Your task to perform on an android device: toggle wifi Image 0: 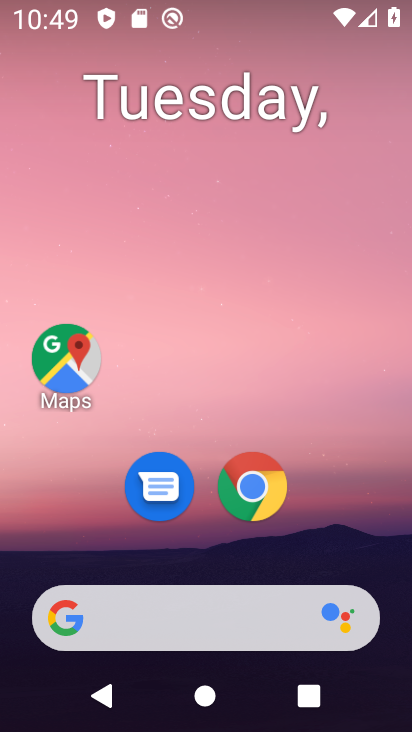
Step 0: drag from (338, 549) to (361, 86)
Your task to perform on an android device: toggle wifi Image 1: 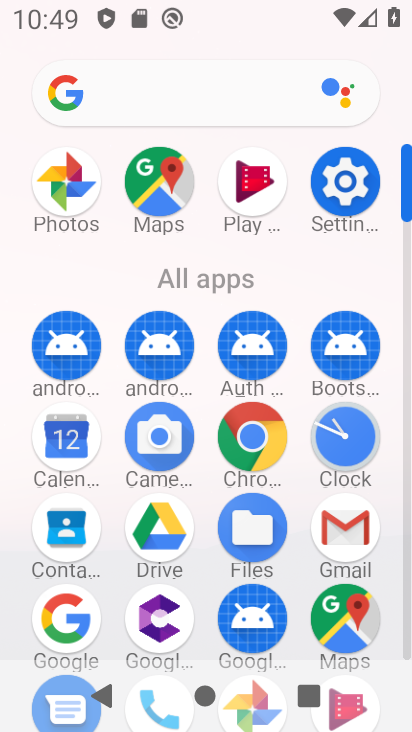
Step 1: click (350, 195)
Your task to perform on an android device: toggle wifi Image 2: 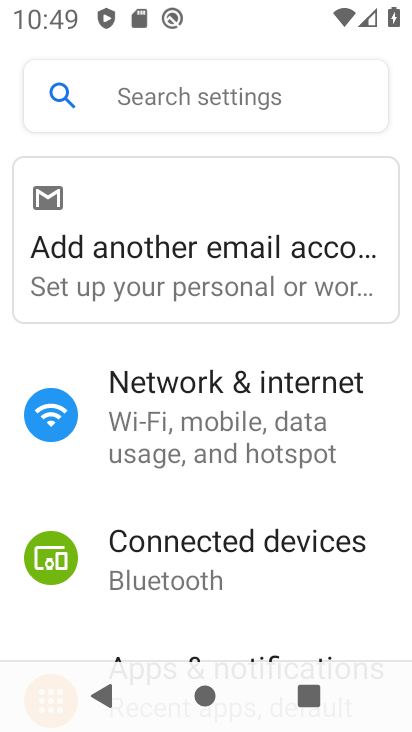
Step 2: drag from (363, 492) to (358, 375)
Your task to perform on an android device: toggle wifi Image 3: 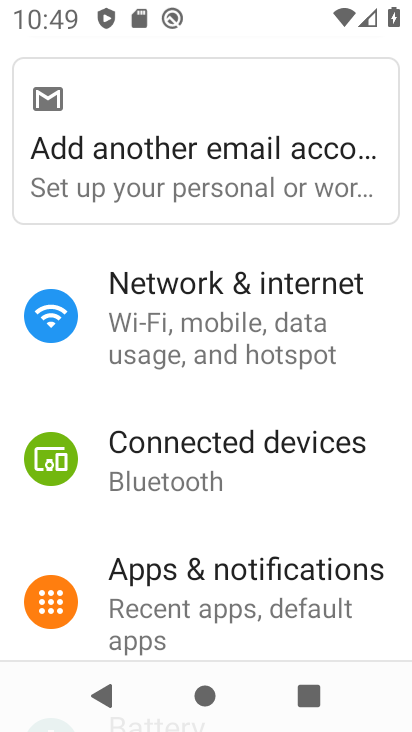
Step 3: drag from (362, 489) to (365, 422)
Your task to perform on an android device: toggle wifi Image 4: 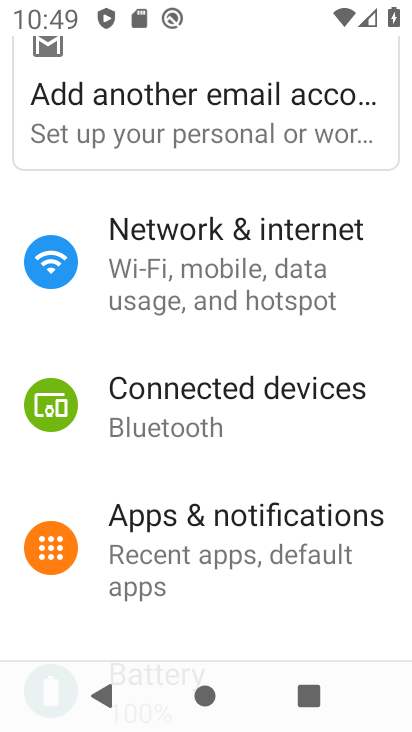
Step 4: drag from (374, 594) to (376, 466)
Your task to perform on an android device: toggle wifi Image 5: 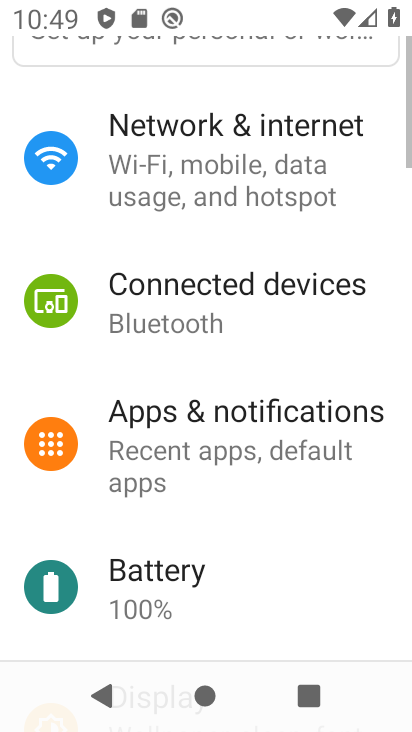
Step 5: drag from (353, 563) to (351, 456)
Your task to perform on an android device: toggle wifi Image 6: 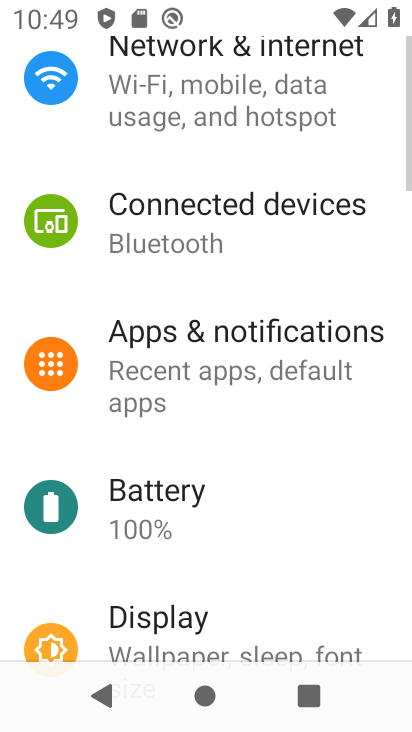
Step 6: drag from (345, 562) to (344, 427)
Your task to perform on an android device: toggle wifi Image 7: 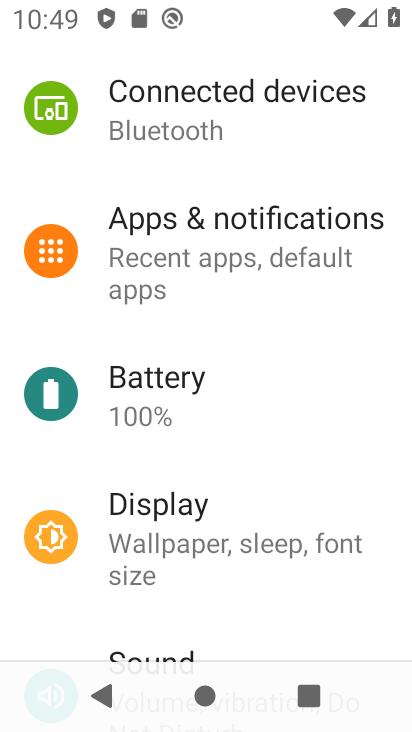
Step 7: drag from (356, 587) to (340, 425)
Your task to perform on an android device: toggle wifi Image 8: 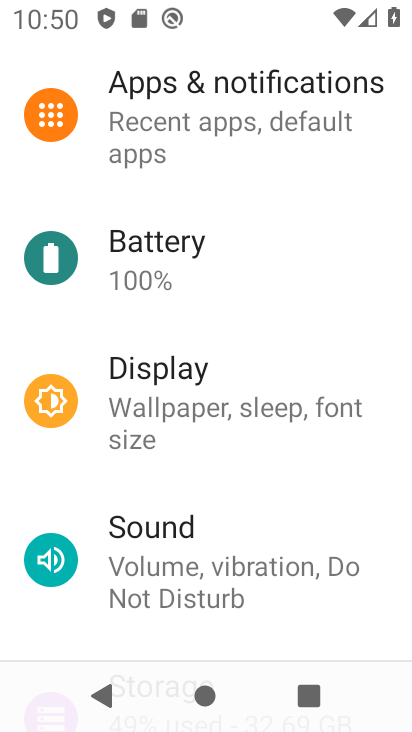
Step 8: drag from (347, 277) to (357, 416)
Your task to perform on an android device: toggle wifi Image 9: 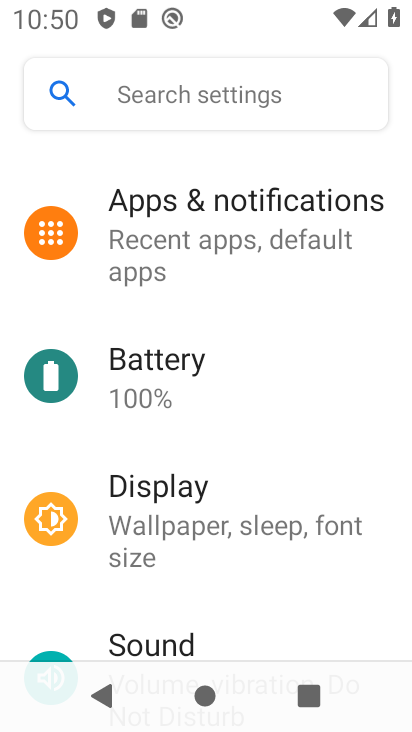
Step 9: drag from (357, 297) to (354, 453)
Your task to perform on an android device: toggle wifi Image 10: 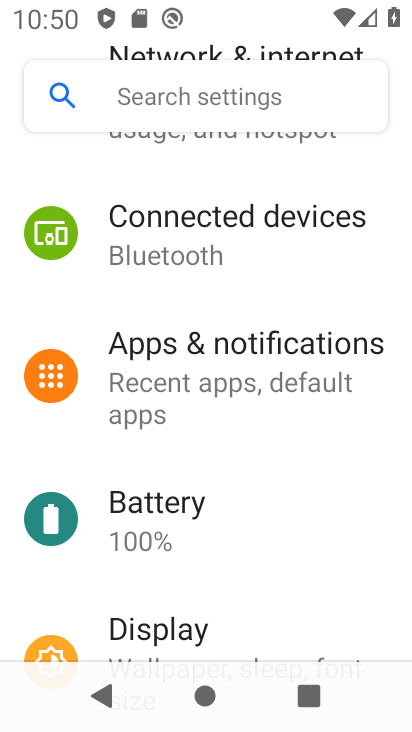
Step 10: drag from (351, 311) to (345, 436)
Your task to perform on an android device: toggle wifi Image 11: 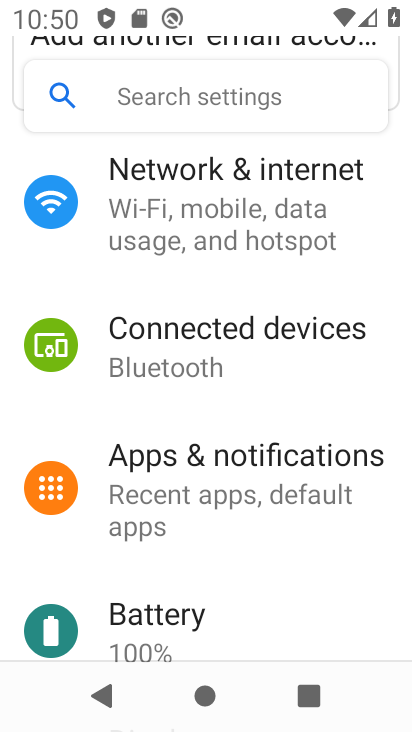
Step 11: drag from (350, 260) to (347, 556)
Your task to perform on an android device: toggle wifi Image 12: 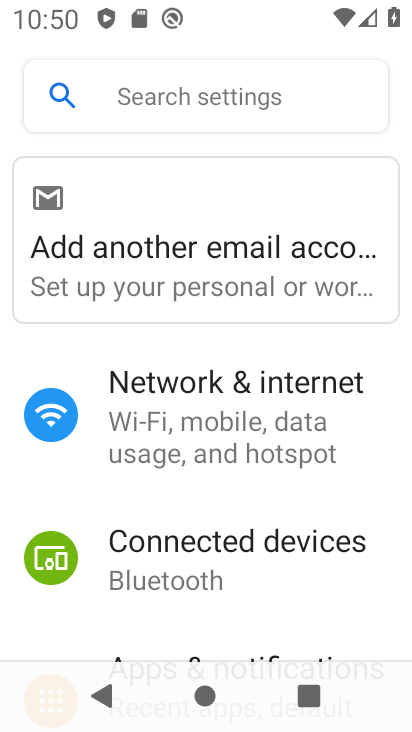
Step 12: drag from (377, 392) to (371, 557)
Your task to perform on an android device: toggle wifi Image 13: 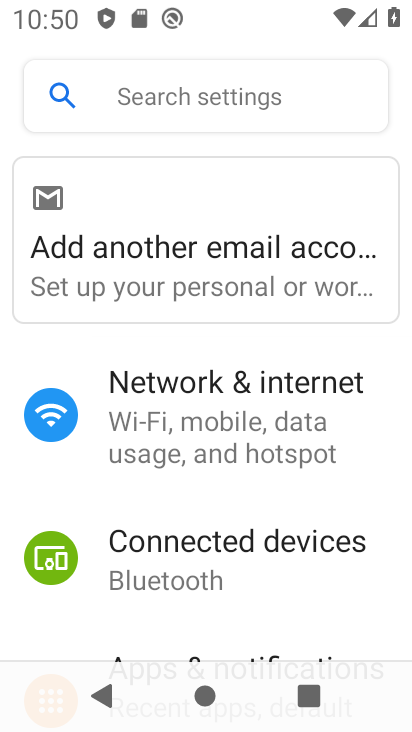
Step 13: drag from (341, 594) to (344, 455)
Your task to perform on an android device: toggle wifi Image 14: 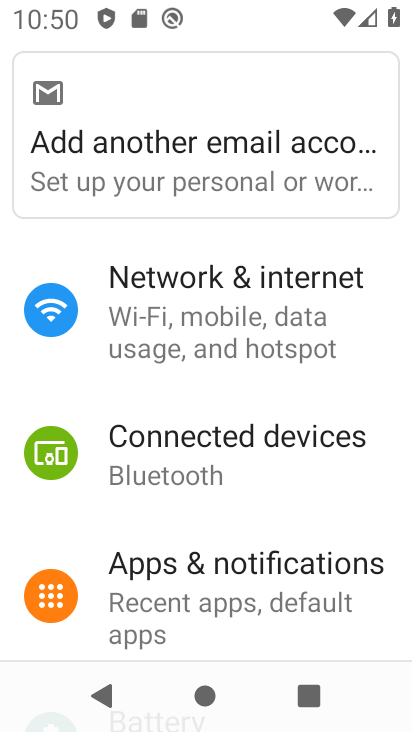
Step 14: drag from (345, 338) to (346, 493)
Your task to perform on an android device: toggle wifi Image 15: 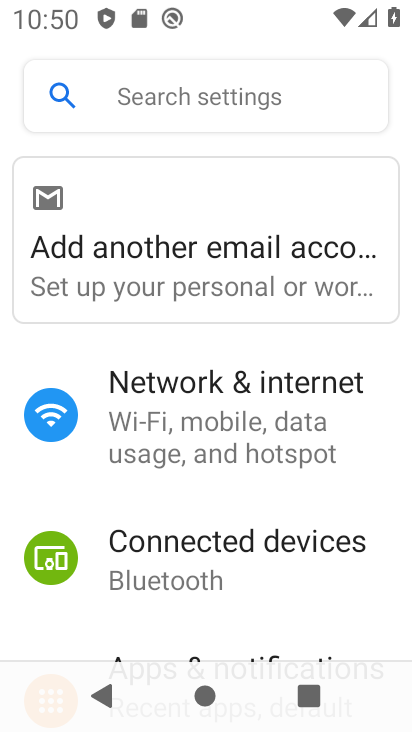
Step 15: click (279, 447)
Your task to perform on an android device: toggle wifi Image 16: 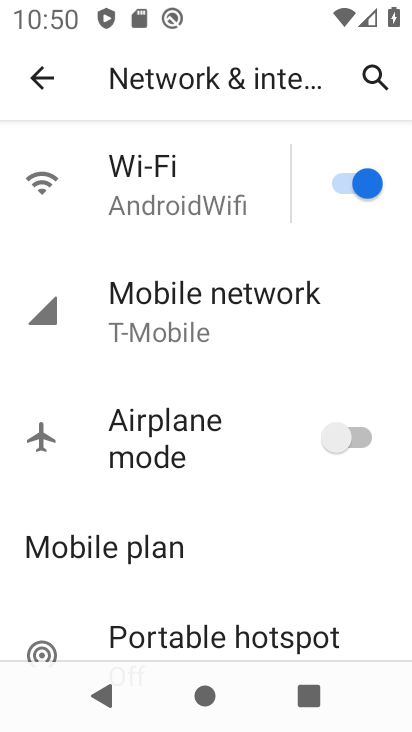
Step 16: drag from (263, 504) to (267, 392)
Your task to perform on an android device: toggle wifi Image 17: 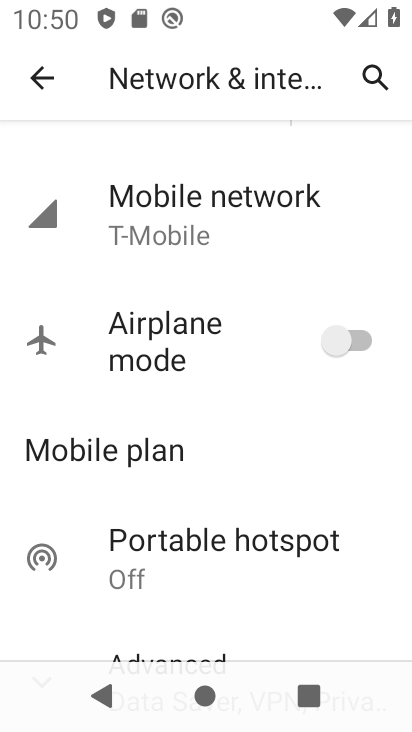
Step 17: drag from (266, 472) to (265, 361)
Your task to perform on an android device: toggle wifi Image 18: 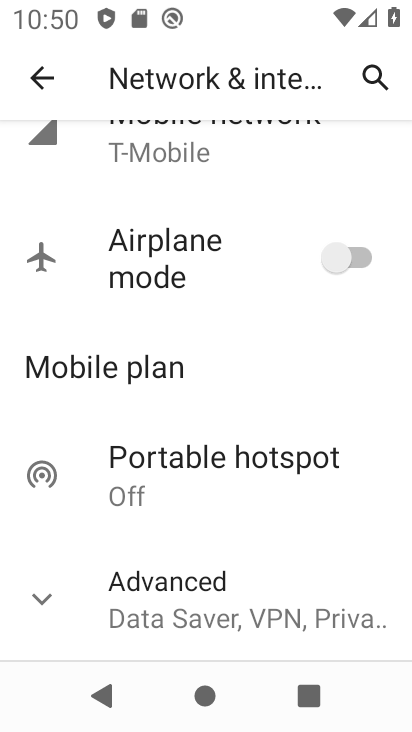
Step 18: drag from (264, 265) to (253, 452)
Your task to perform on an android device: toggle wifi Image 19: 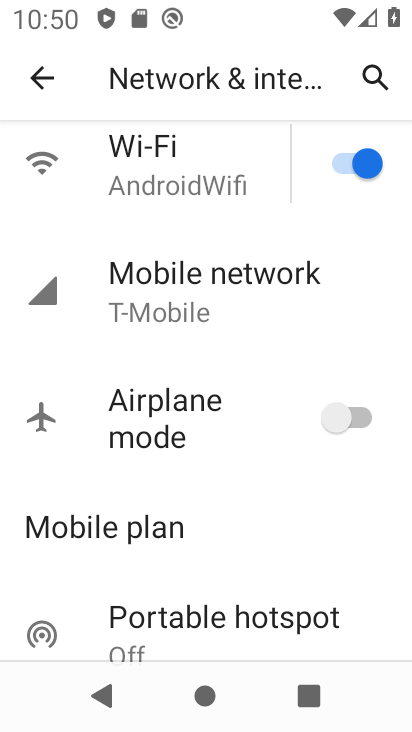
Step 19: drag from (259, 255) to (257, 424)
Your task to perform on an android device: toggle wifi Image 20: 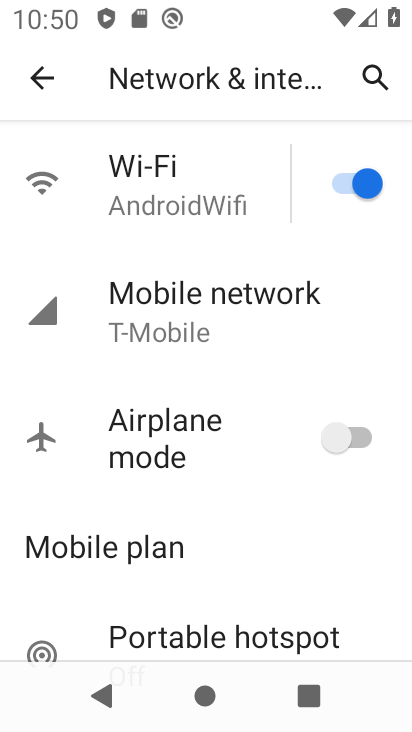
Step 20: click (361, 189)
Your task to perform on an android device: toggle wifi Image 21: 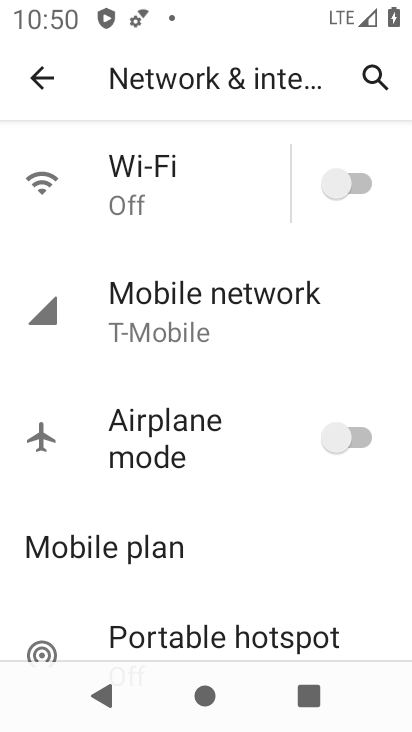
Step 21: task complete